Your task to perform on an android device: Clear the shopping cart on newegg.com. Search for "usb-a to usb-b" on newegg.com, select the first entry, and add it to the cart. Image 0: 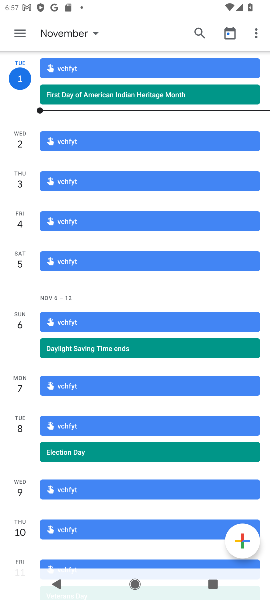
Step 0: press home button
Your task to perform on an android device: Clear the shopping cart on newegg.com. Search for "usb-a to usb-b" on newegg.com, select the first entry, and add it to the cart. Image 1: 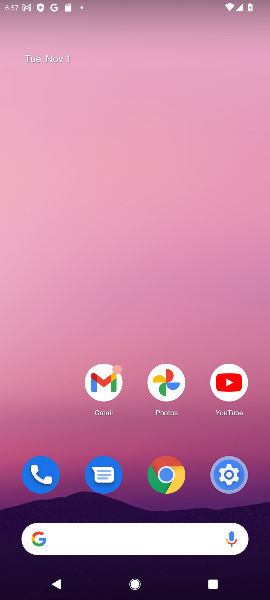
Step 1: click (142, 536)
Your task to perform on an android device: Clear the shopping cart on newegg.com. Search for "usb-a to usb-b" on newegg.com, select the first entry, and add it to the cart. Image 2: 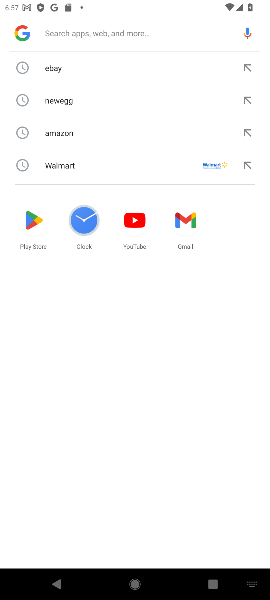
Step 2: type "newegg.com"
Your task to perform on an android device: Clear the shopping cart on newegg.com. Search for "usb-a to usb-b" on newegg.com, select the first entry, and add it to the cart. Image 3: 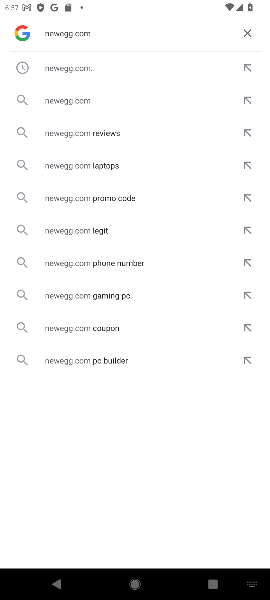
Step 3: click (77, 106)
Your task to perform on an android device: Clear the shopping cart on newegg.com. Search for "usb-a to usb-b" on newegg.com, select the first entry, and add it to the cart. Image 4: 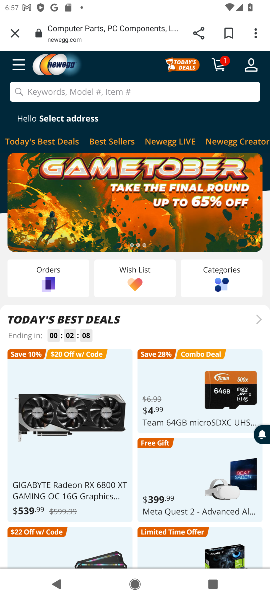
Step 4: click (105, 85)
Your task to perform on an android device: Clear the shopping cart on newegg.com. Search for "usb-a to usb-b" on newegg.com, select the first entry, and add it to the cart. Image 5: 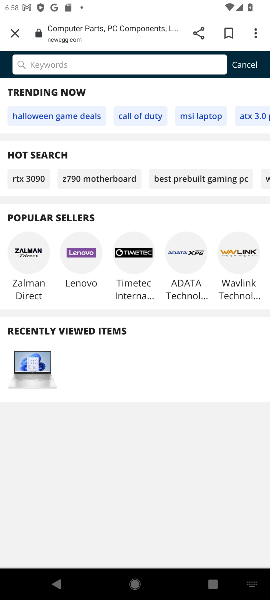
Step 5: type "usb-a to usb-b"
Your task to perform on an android device: Clear the shopping cart on newegg.com. Search for "usb-a to usb-b" on newegg.com, select the first entry, and add it to the cart. Image 6: 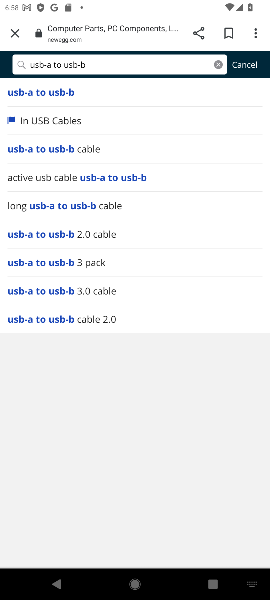
Step 6: click (46, 93)
Your task to perform on an android device: Clear the shopping cart on newegg.com. Search for "usb-a to usb-b" on newegg.com, select the first entry, and add it to the cart. Image 7: 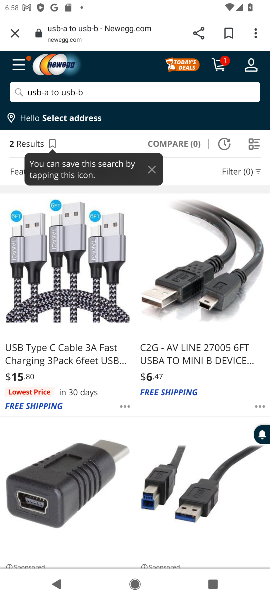
Step 7: click (59, 305)
Your task to perform on an android device: Clear the shopping cart on newegg.com. Search for "usb-a to usb-b" on newegg.com, select the first entry, and add it to the cart. Image 8: 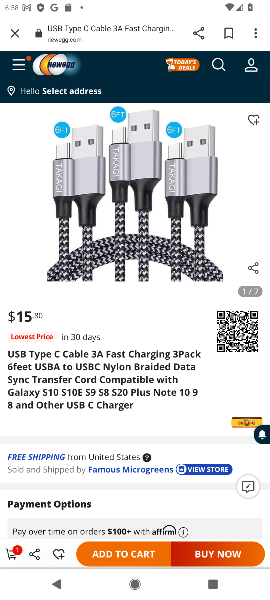
Step 8: click (110, 553)
Your task to perform on an android device: Clear the shopping cart on newegg.com. Search for "usb-a to usb-b" on newegg.com, select the first entry, and add it to the cart. Image 9: 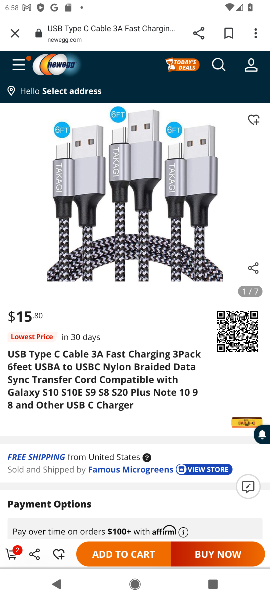
Step 9: click (132, 553)
Your task to perform on an android device: Clear the shopping cart on newegg.com. Search for "usb-a to usb-b" on newegg.com, select the first entry, and add it to the cart. Image 10: 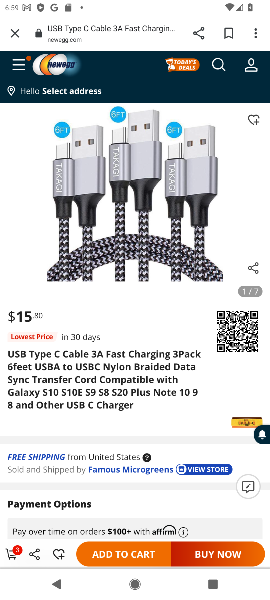
Step 10: task complete